Your task to perform on an android device: Open my contact list Image 0: 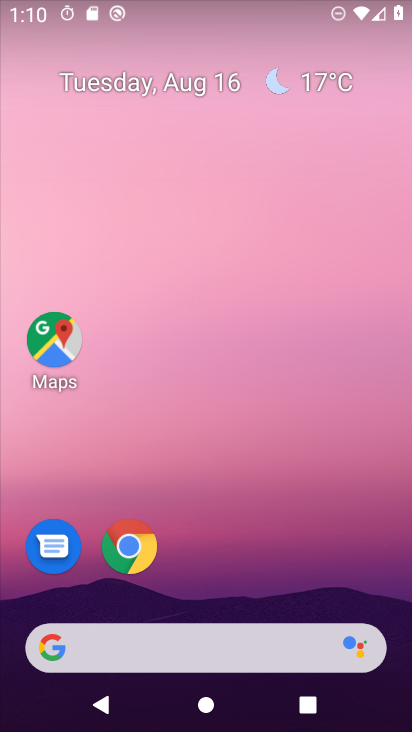
Step 0: drag from (221, 615) to (221, 183)
Your task to perform on an android device: Open my contact list Image 1: 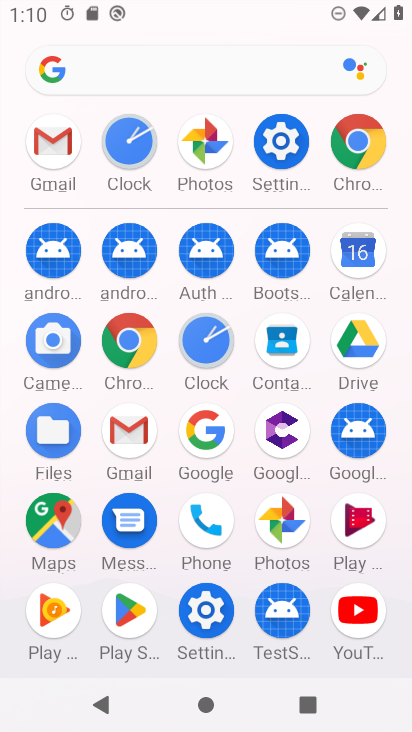
Step 1: click (278, 348)
Your task to perform on an android device: Open my contact list Image 2: 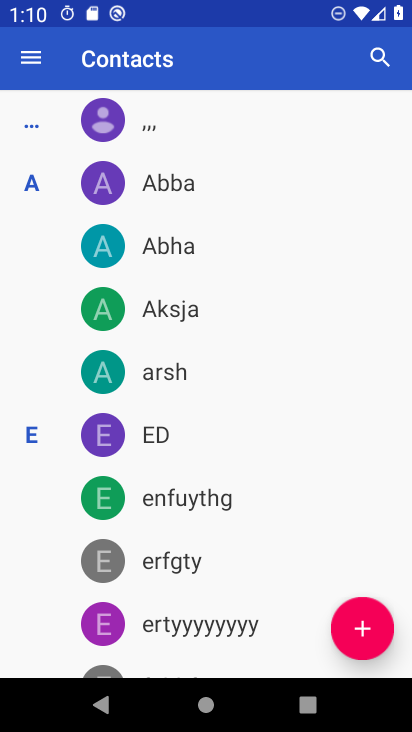
Step 2: task complete